Your task to perform on an android device: see sites visited before in the chrome app Image 0: 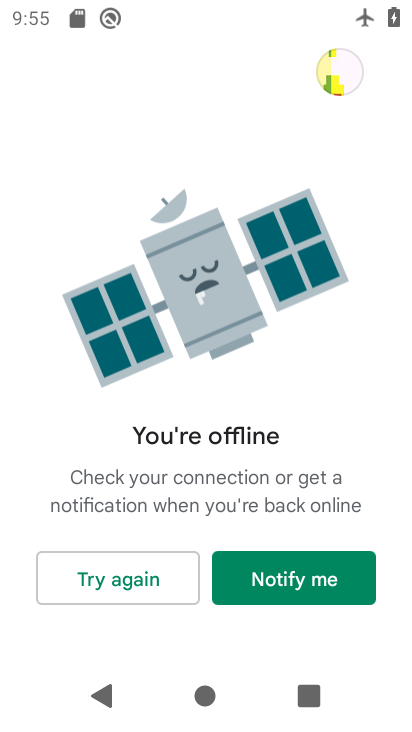
Step 0: press home button
Your task to perform on an android device: see sites visited before in the chrome app Image 1: 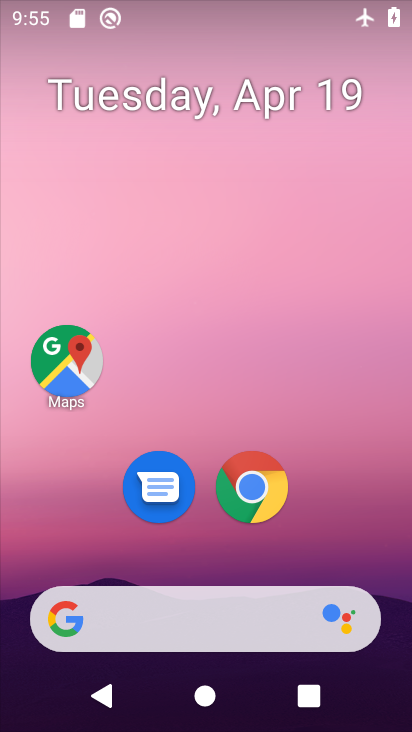
Step 1: click (252, 478)
Your task to perform on an android device: see sites visited before in the chrome app Image 2: 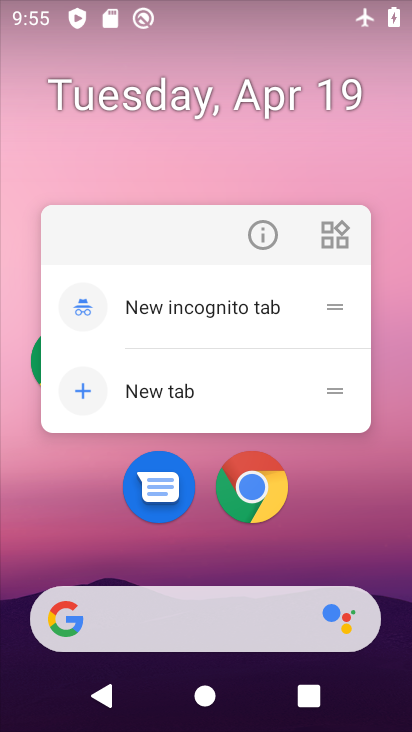
Step 2: click (252, 478)
Your task to perform on an android device: see sites visited before in the chrome app Image 3: 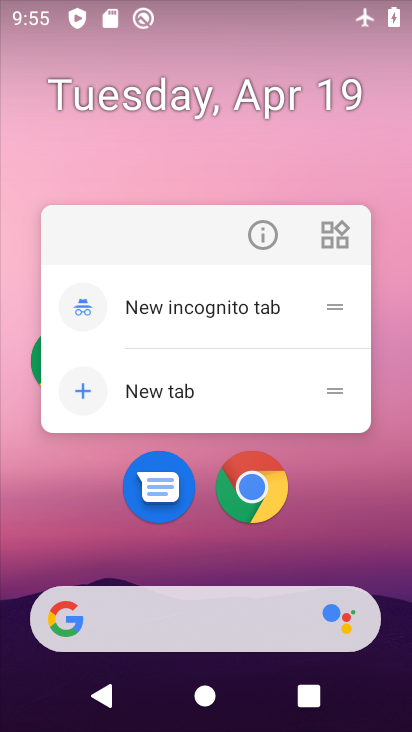
Step 3: click (252, 477)
Your task to perform on an android device: see sites visited before in the chrome app Image 4: 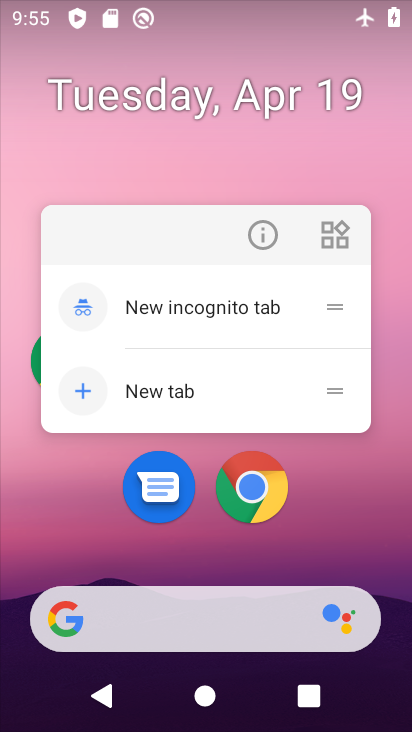
Step 4: click (252, 486)
Your task to perform on an android device: see sites visited before in the chrome app Image 5: 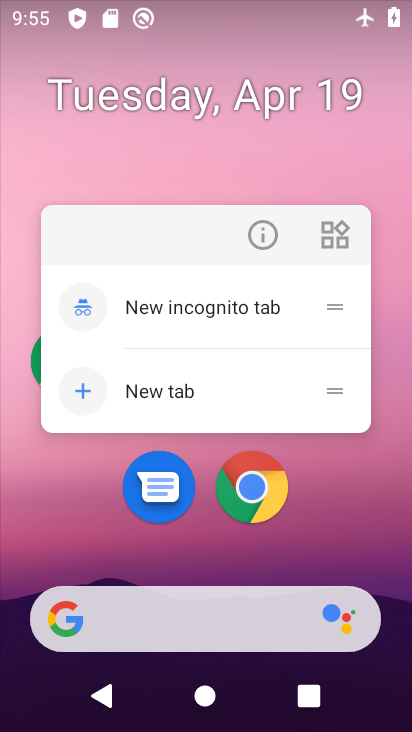
Step 5: click (252, 486)
Your task to perform on an android device: see sites visited before in the chrome app Image 6: 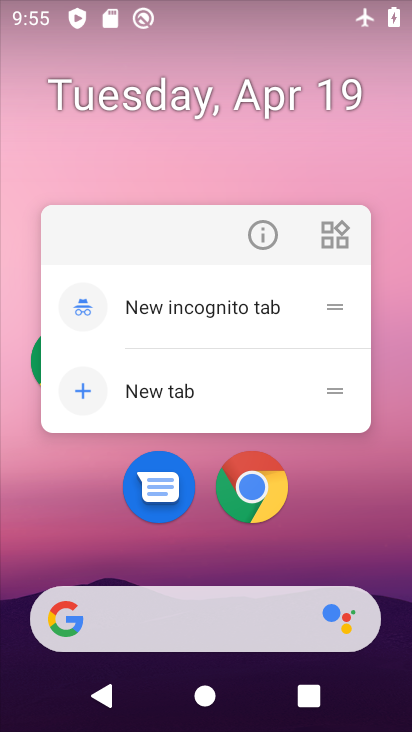
Step 6: click (267, 499)
Your task to perform on an android device: see sites visited before in the chrome app Image 7: 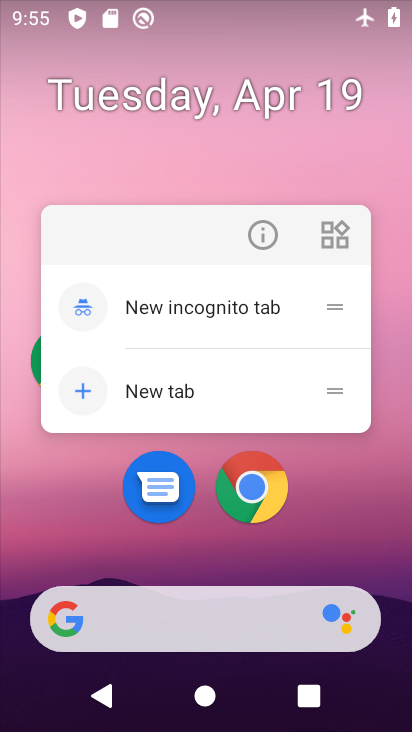
Step 7: click (246, 483)
Your task to perform on an android device: see sites visited before in the chrome app Image 8: 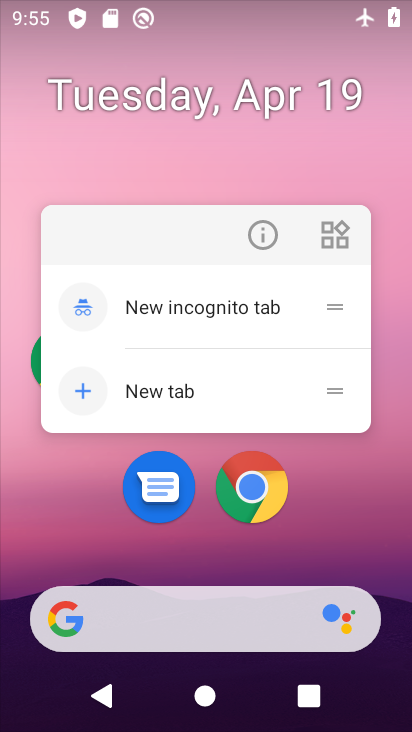
Step 8: click (243, 478)
Your task to perform on an android device: see sites visited before in the chrome app Image 9: 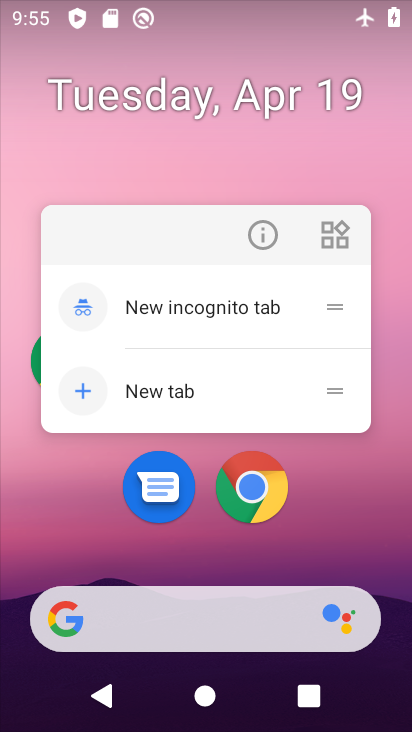
Step 9: click (260, 518)
Your task to perform on an android device: see sites visited before in the chrome app Image 10: 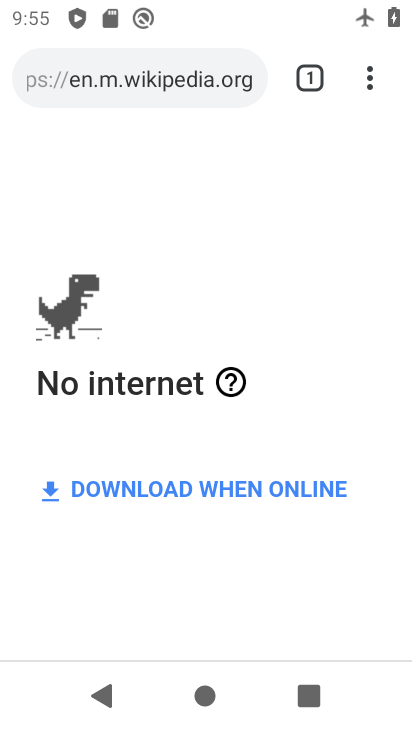
Step 10: click (368, 78)
Your task to perform on an android device: see sites visited before in the chrome app Image 11: 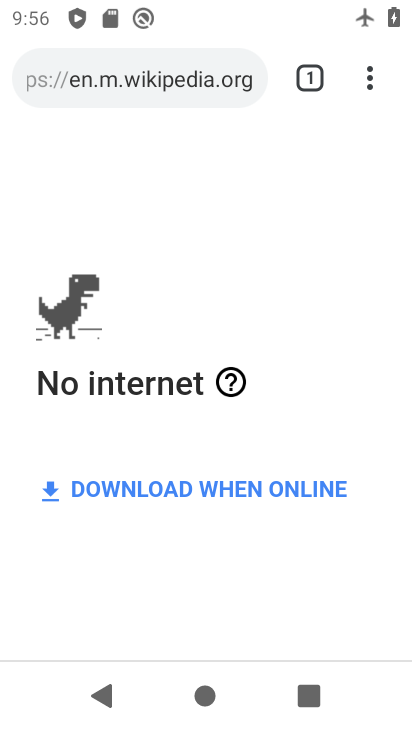
Step 11: click (368, 78)
Your task to perform on an android device: see sites visited before in the chrome app Image 12: 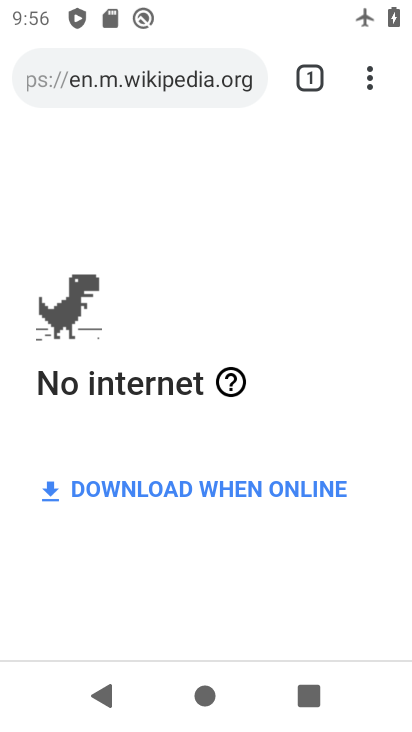
Step 12: click (370, 78)
Your task to perform on an android device: see sites visited before in the chrome app Image 13: 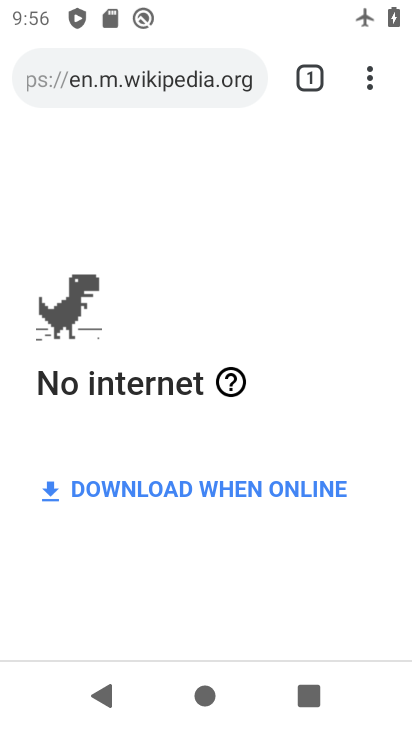
Step 13: click (360, 71)
Your task to perform on an android device: see sites visited before in the chrome app Image 14: 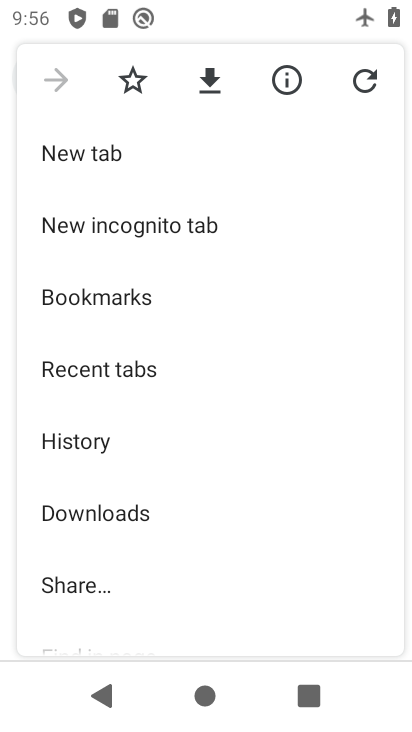
Step 14: click (68, 450)
Your task to perform on an android device: see sites visited before in the chrome app Image 15: 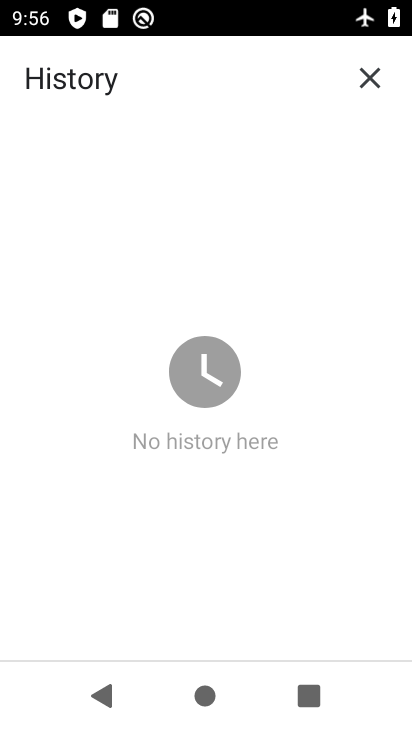
Step 15: task complete